Your task to perform on an android device: Open Google Chrome and open the bookmarks view Image 0: 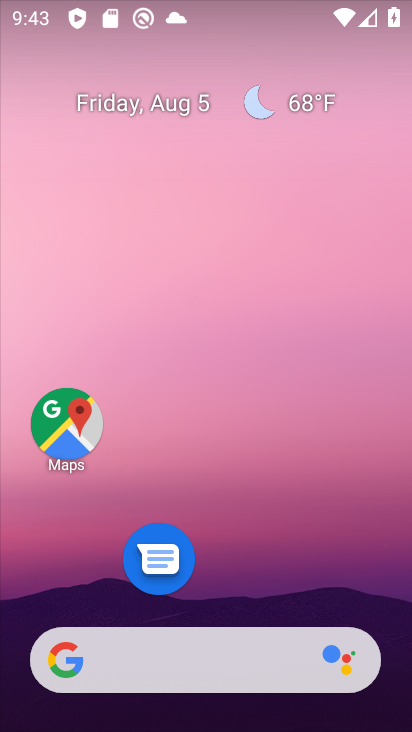
Step 0: drag from (281, 652) to (280, 68)
Your task to perform on an android device: Open Google Chrome and open the bookmarks view Image 1: 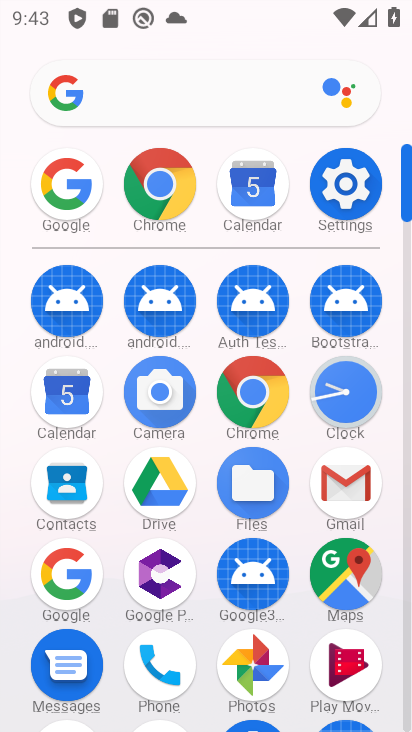
Step 1: click (143, 196)
Your task to perform on an android device: Open Google Chrome and open the bookmarks view Image 2: 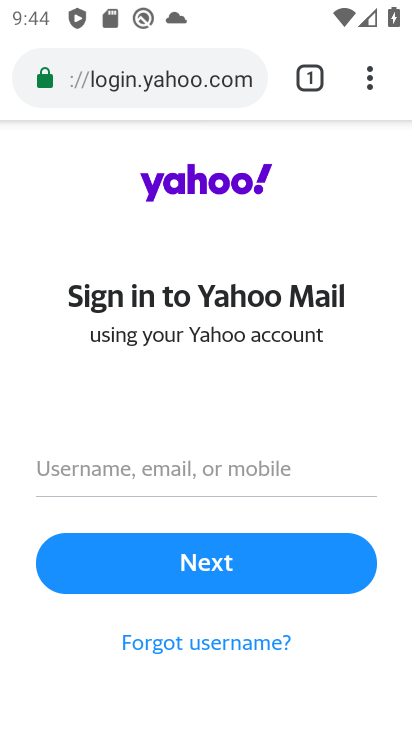
Step 2: click (387, 94)
Your task to perform on an android device: Open Google Chrome and open the bookmarks view Image 3: 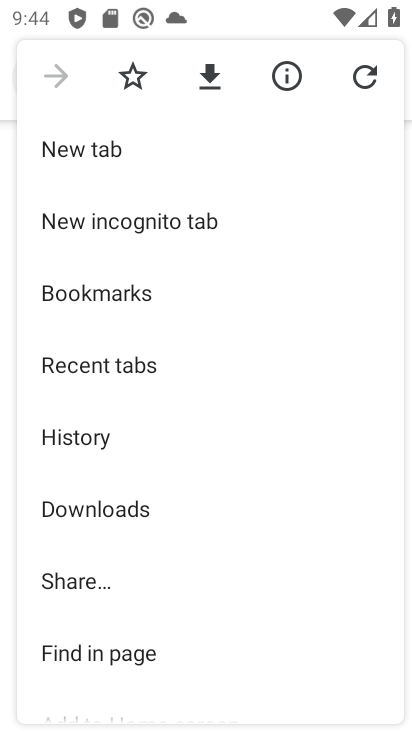
Step 3: click (146, 301)
Your task to perform on an android device: Open Google Chrome and open the bookmarks view Image 4: 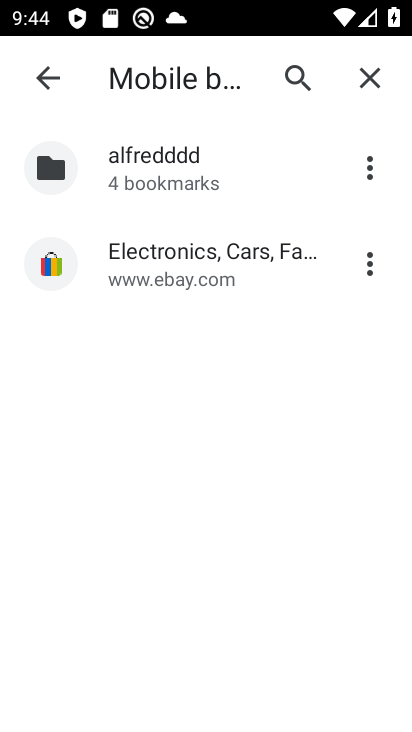
Step 4: task complete